Your task to perform on an android device: see sites visited before in the chrome app Image 0: 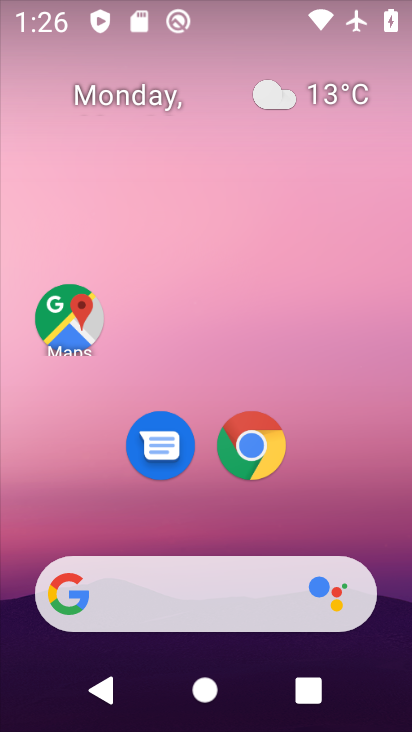
Step 0: drag from (398, 612) to (293, 112)
Your task to perform on an android device: see sites visited before in the chrome app Image 1: 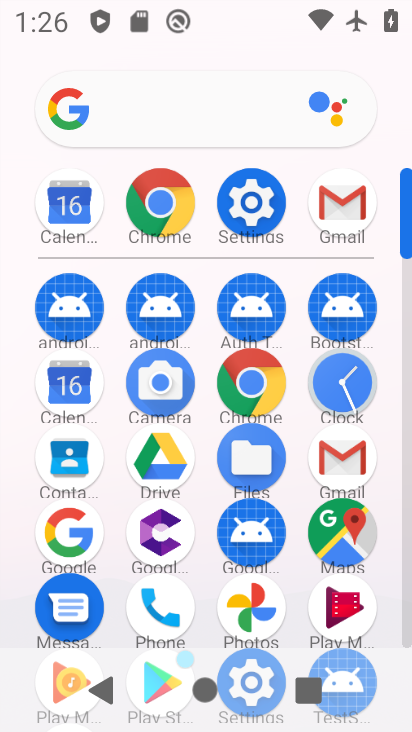
Step 1: click (250, 386)
Your task to perform on an android device: see sites visited before in the chrome app Image 2: 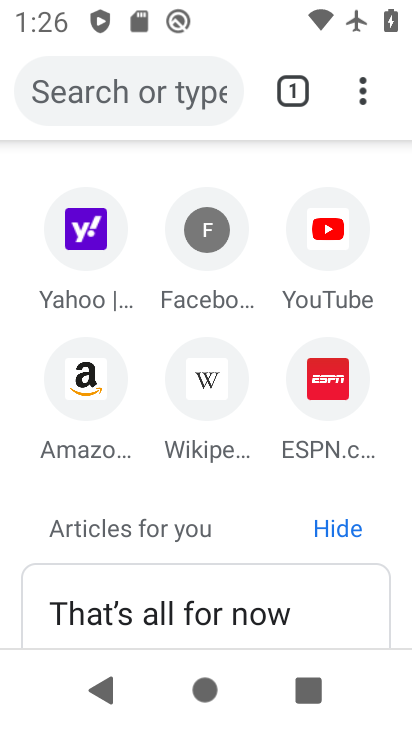
Step 2: click (358, 91)
Your task to perform on an android device: see sites visited before in the chrome app Image 3: 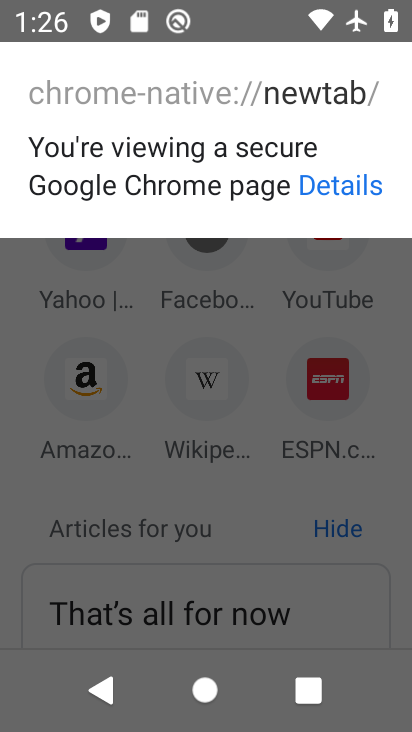
Step 3: click (390, 287)
Your task to perform on an android device: see sites visited before in the chrome app Image 4: 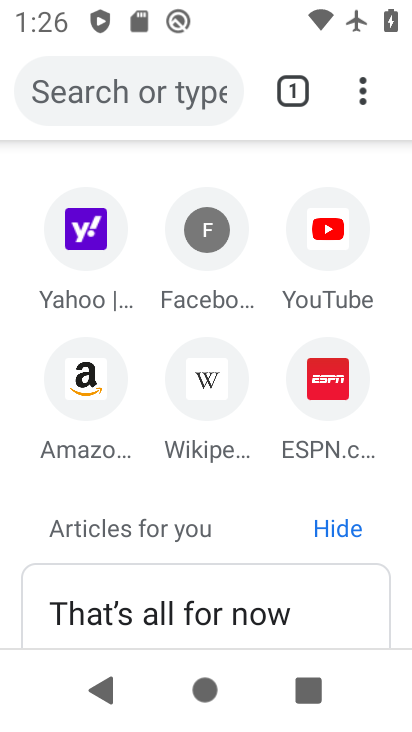
Step 4: click (365, 89)
Your task to perform on an android device: see sites visited before in the chrome app Image 5: 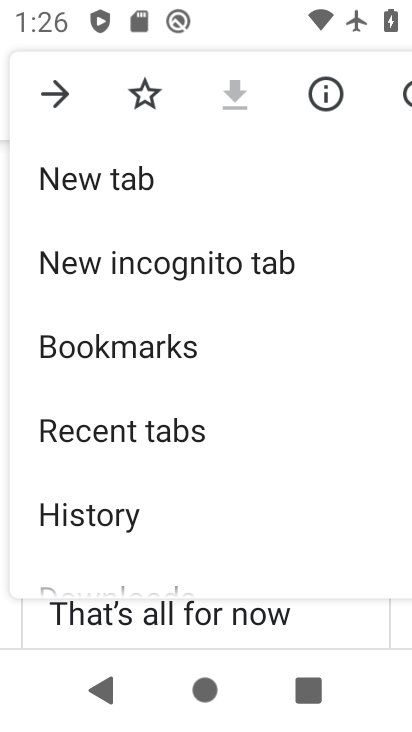
Step 5: click (123, 517)
Your task to perform on an android device: see sites visited before in the chrome app Image 6: 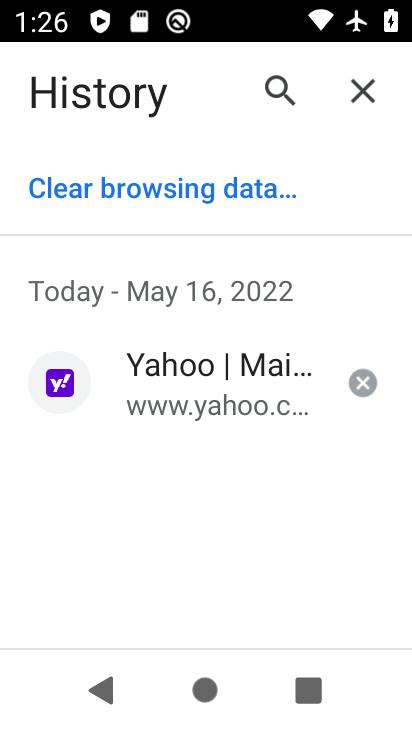
Step 6: click (185, 390)
Your task to perform on an android device: see sites visited before in the chrome app Image 7: 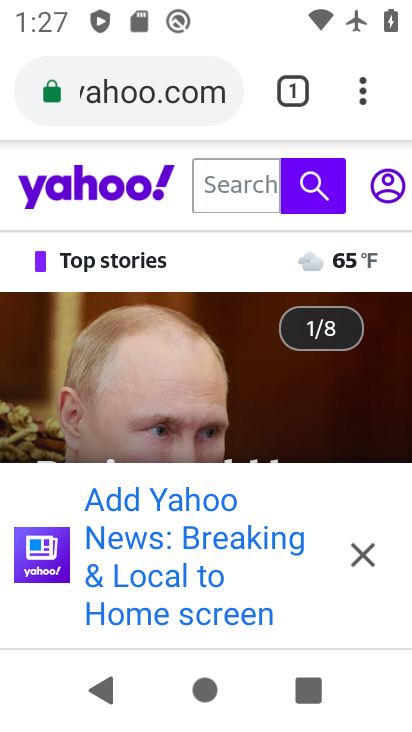
Step 7: task complete